Your task to perform on an android device: empty trash in the gmail app Image 0: 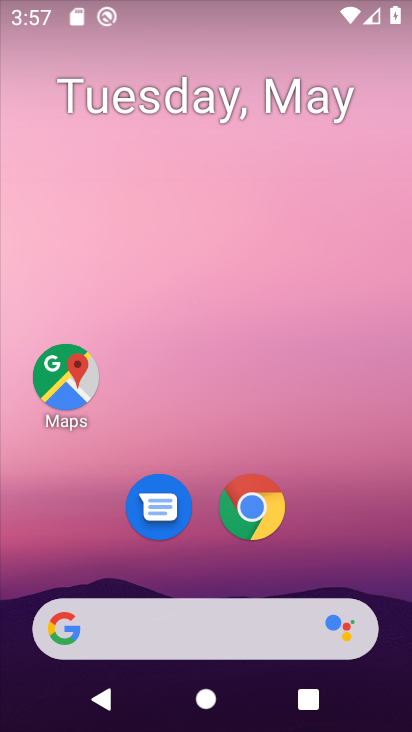
Step 0: drag from (206, 574) to (286, 54)
Your task to perform on an android device: empty trash in the gmail app Image 1: 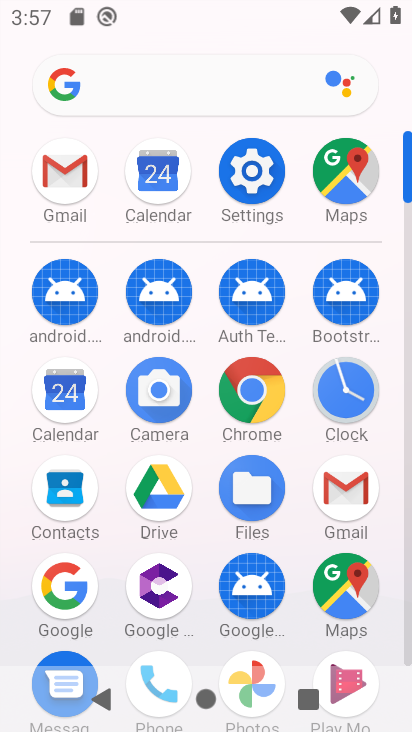
Step 1: click (349, 479)
Your task to perform on an android device: empty trash in the gmail app Image 2: 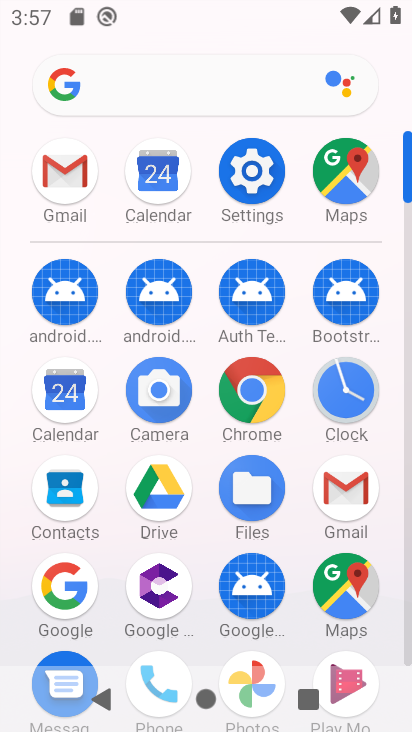
Step 2: click (346, 499)
Your task to perform on an android device: empty trash in the gmail app Image 3: 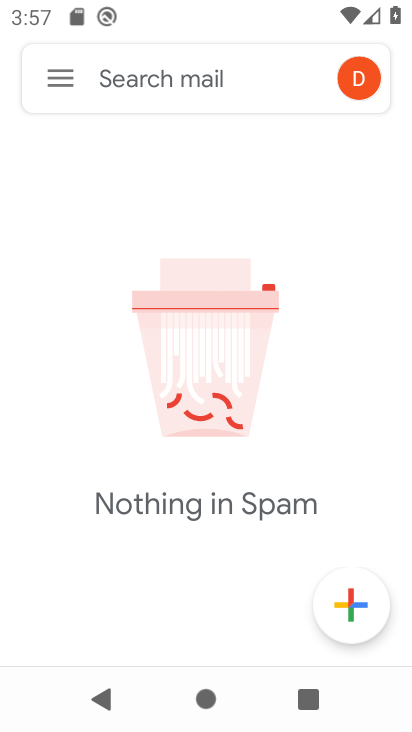
Step 3: click (47, 85)
Your task to perform on an android device: empty trash in the gmail app Image 4: 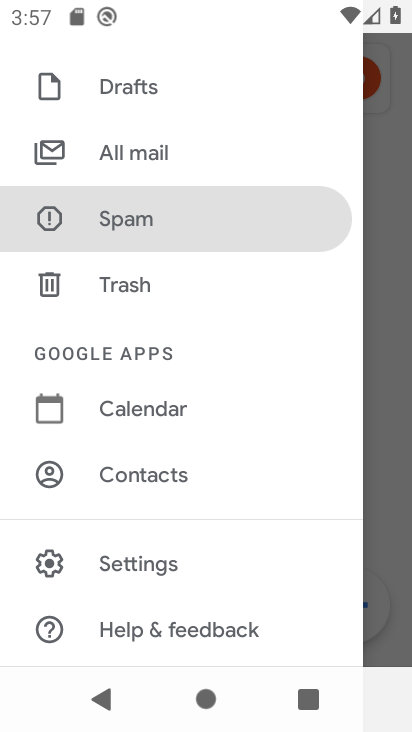
Step 4: click (105, 288)
Your task to perform on an android device: empty trash in the gmail app Image 5: 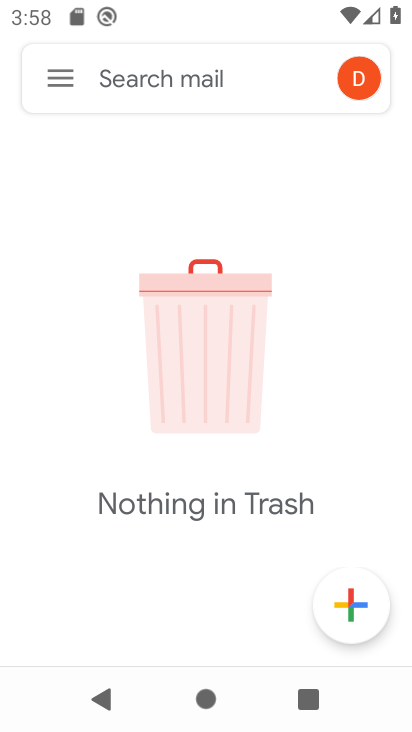
Step 5: task complete